Your task to perform on an android device: delete the emails in spam in the gmail app Image 0: 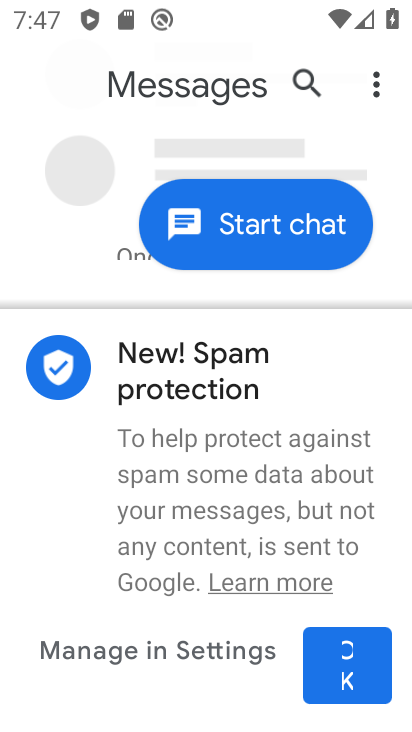
Step 0: press home button
Your task to perform on an android device: delete the emails in spam in the gmail app Image 1: 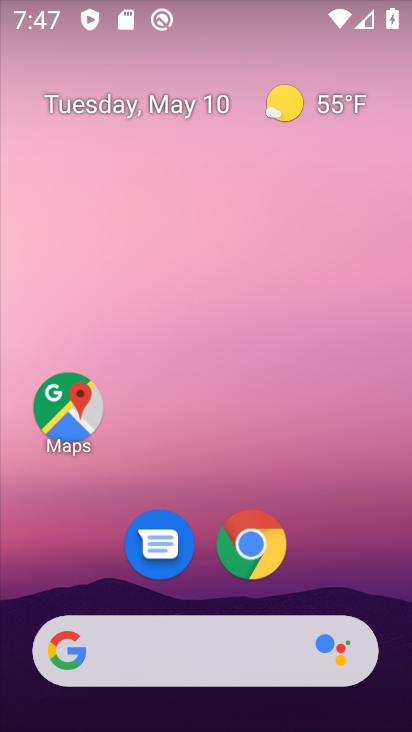
Step 1: drag from (199, 618) to (187, 252)
Your task to perform on an android device: delete the emails in spam in the gmail app Image 2: 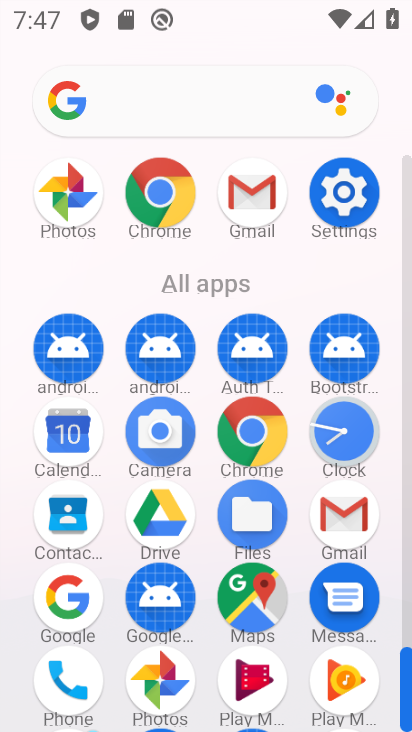
Step 2: click (231, 212)
Your task to perform on an android device: delete the emails in spam in the gmail app Image 3: 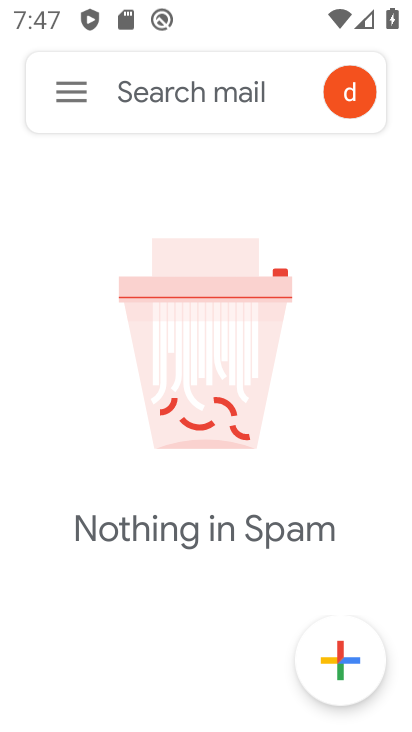
Step 3: click (76, 90)
Your task to perform on an android device: delete the emails in spam in the gmail app Image 4: 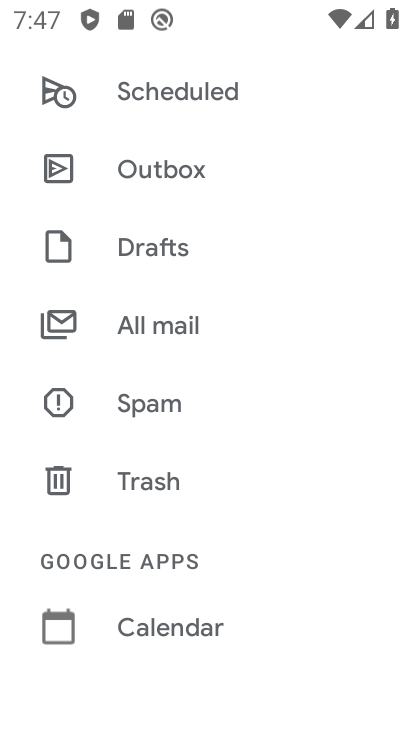
Step 4: click (141, 410)
Your task to perform on an android device: delete the emails in spam in the gmail app Image 5: 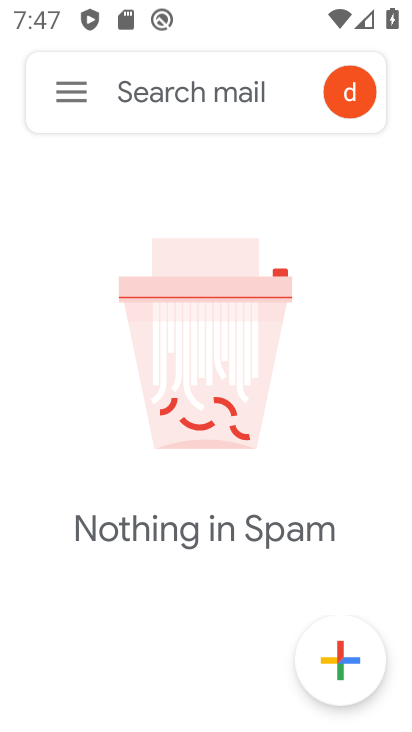
Step 5: task complete